Your task to perform on an android device: visit the assistant section in the google photos Image 0: 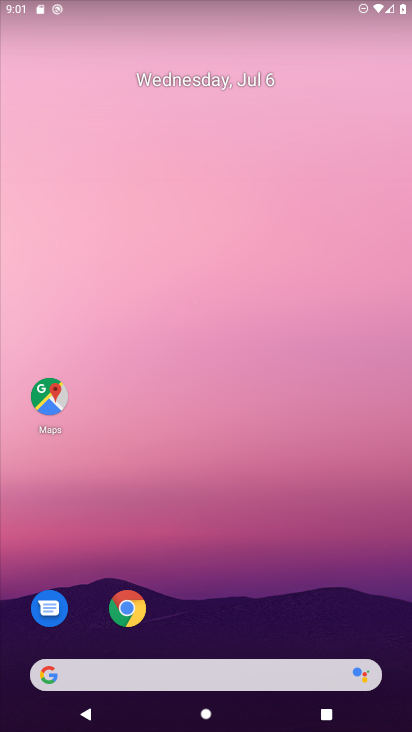
Step 0: drag from (234, 629) to (174, 127)
Your task to perform on an android device: visit the assistant section in the google photos Image 1: 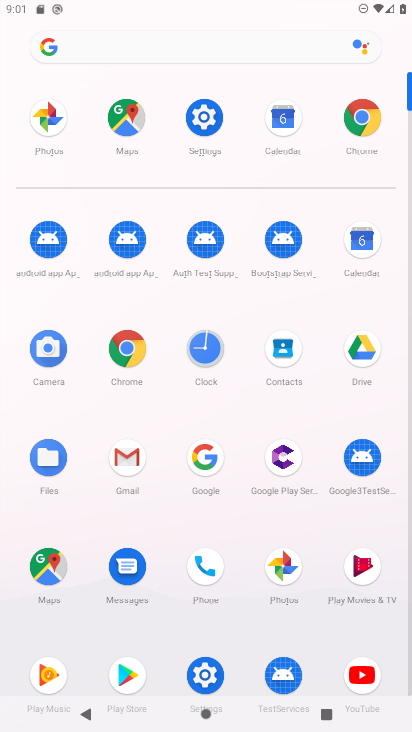
Step 1: click (362, 122)
Your task to perform on an android device: visit the assistant section in the google photos Image 2: 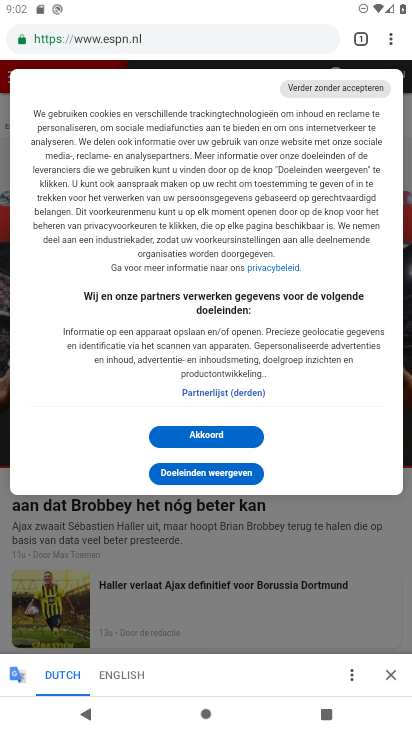
Step 2: press home button
Your task to perform on an android device: visit the assistant section in the google photos Image 3: 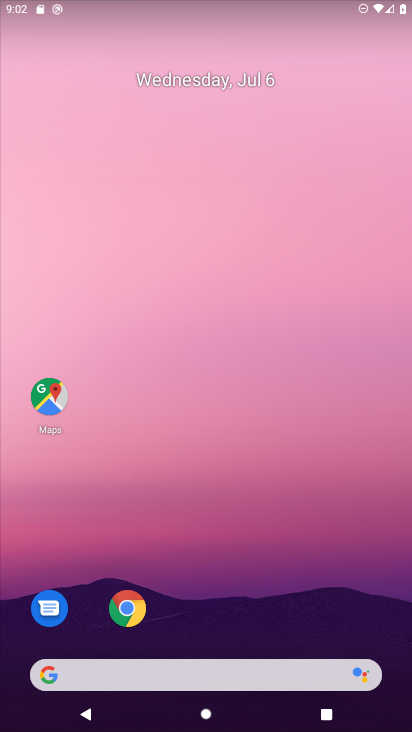
Step 3: drag from (214, 642) to (127, 166)
Your task to perform on an android device: visit the assistant section in the google photos Image 4: 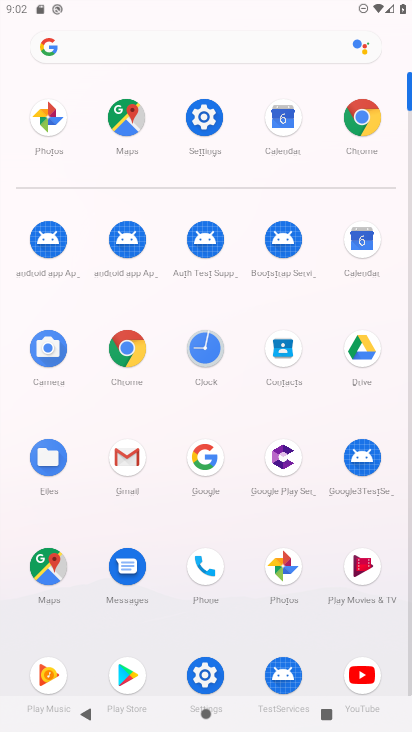
Step 4: click (294, 579)
Your task to perform on an android device: visit the assistant section in the google photos Image 5: 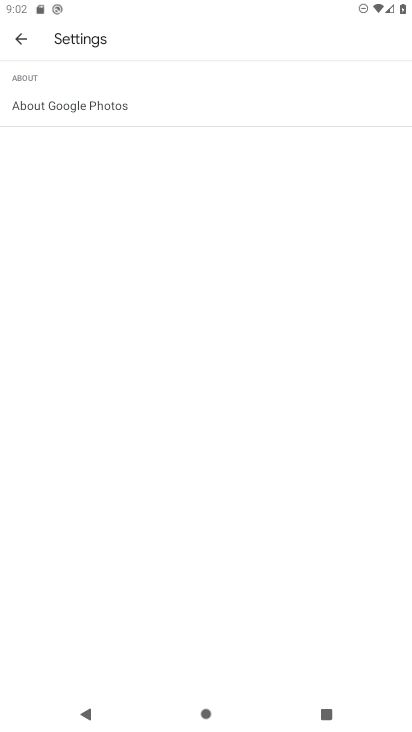
Step 5: click (17, 35)
Your task to perform on an android device: visit the assistant section in the google photos Image 6: 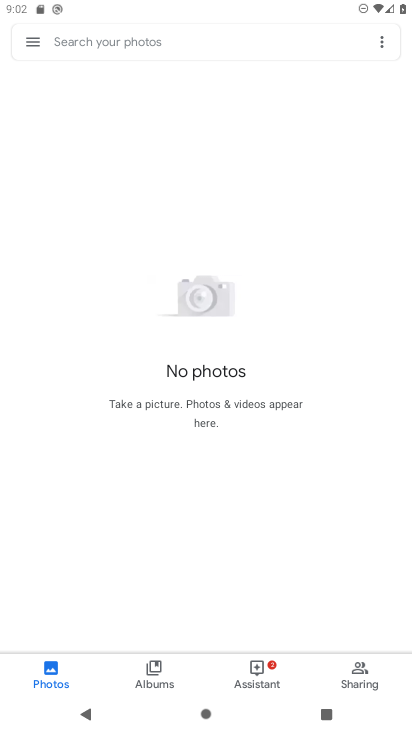
Step 6: click (260, 681)
Your task to perform on an android device: visit the assistant section in the google photos Image 7: 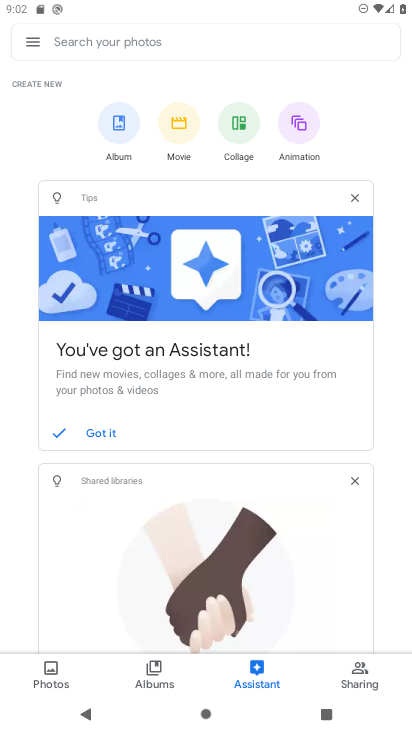
Step 7: task complete